Your task to perform on an android device: star an email in the gmail app Image 0: 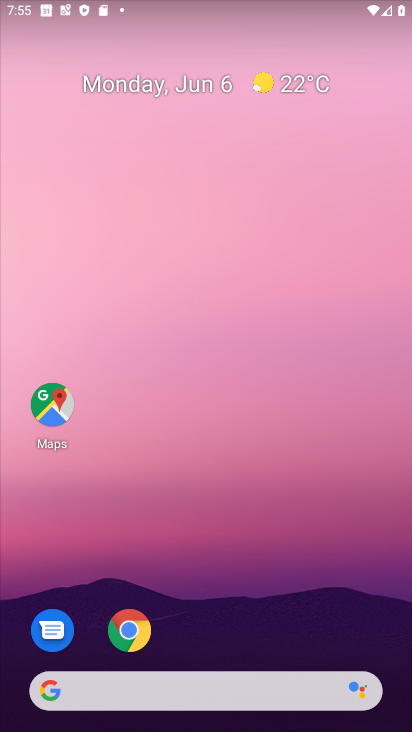
Step 0: drag from (142, 725) to (116, 154)
Your task to perform on an android device: star an email in the gmail app Image 1: 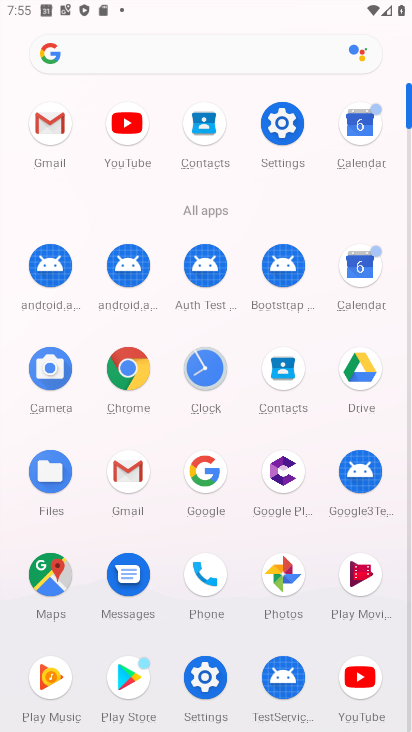
Step 1: click (118, 480)
Your task to perform on an android device: star an email in the gmail app Image 2: 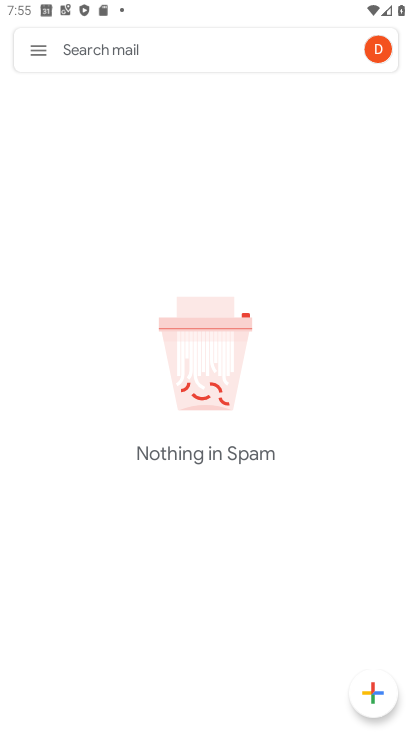
Step 2: click (30, 47)
Your task to perform on an android device: star an email in the gmail app Image 3: 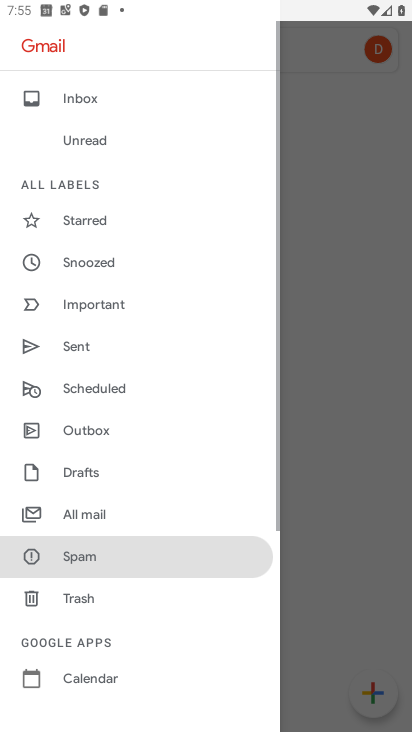
Step 3: click (111, 111)
Your task to perform on an android device: star an email in the gmail app Image 4: 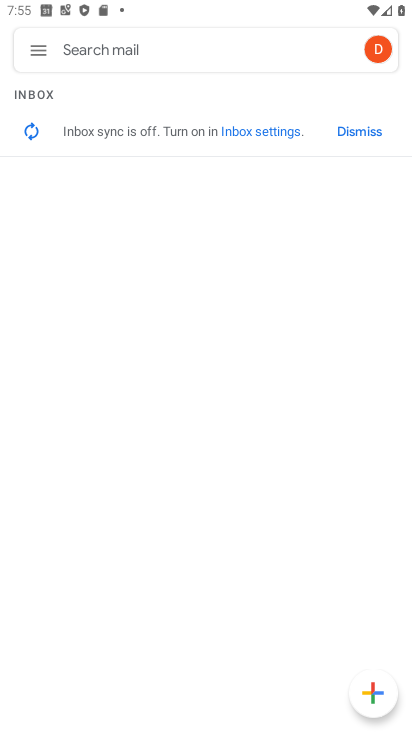
Step 4: click (48, 55)
Your task to perform on an android device: star an email in the gmail app Image 5: 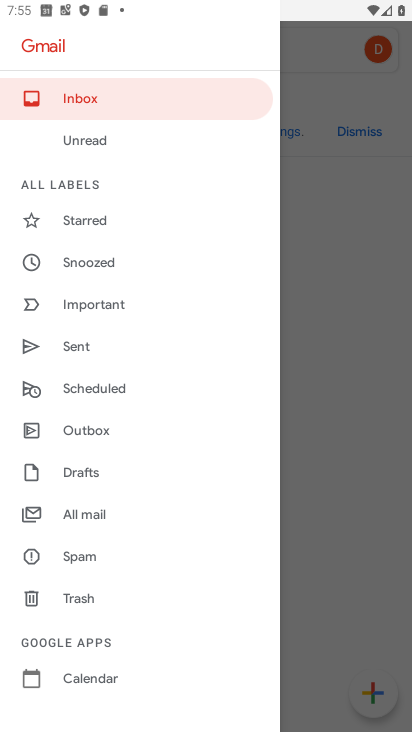
Step 5: click (99, 517)
Your task to perform on an android device: star an email in the gmail app Image 6: 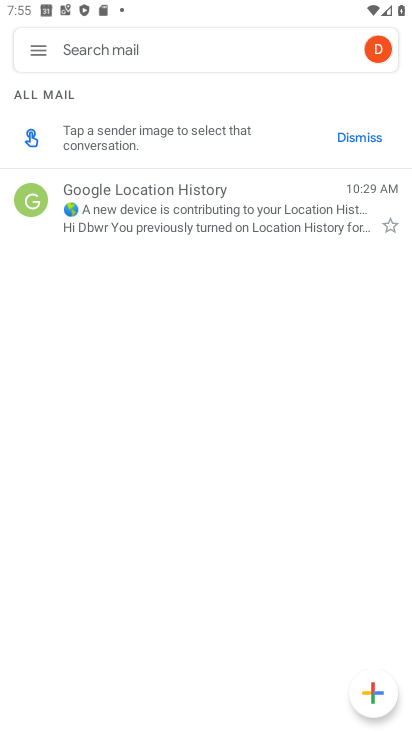
Step 6: click (387, 224)
Your task to perform on an android device: star an email in the gmail app Image 7: 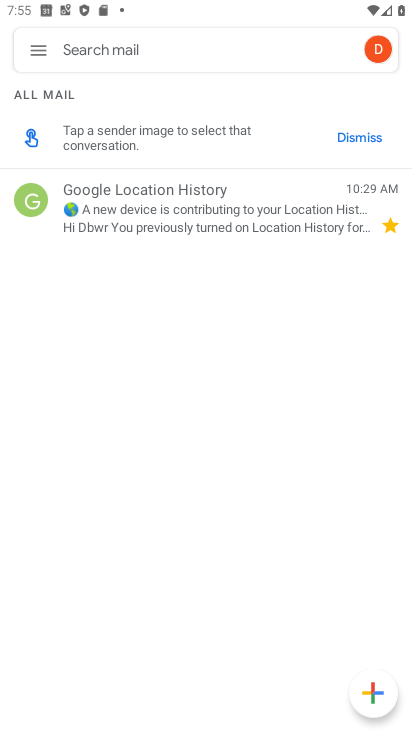
Step 7: task complete